Your task to perform on an android device: Go to sound settings Image 0: 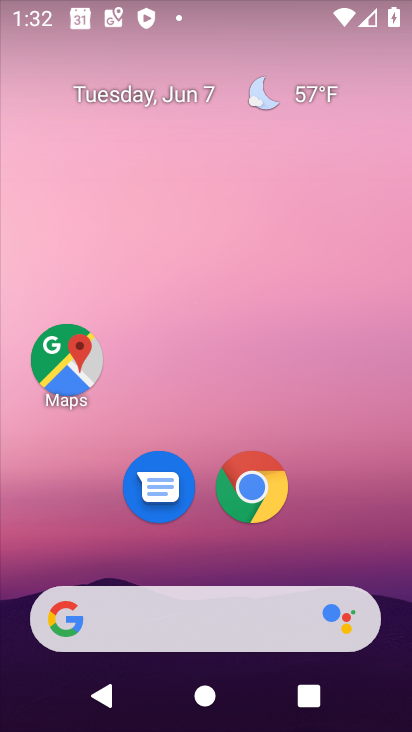
Step 0: drag from (351, 515) to (269, 2)
Your task to perform on an android device: Go to sound settings Image 1: 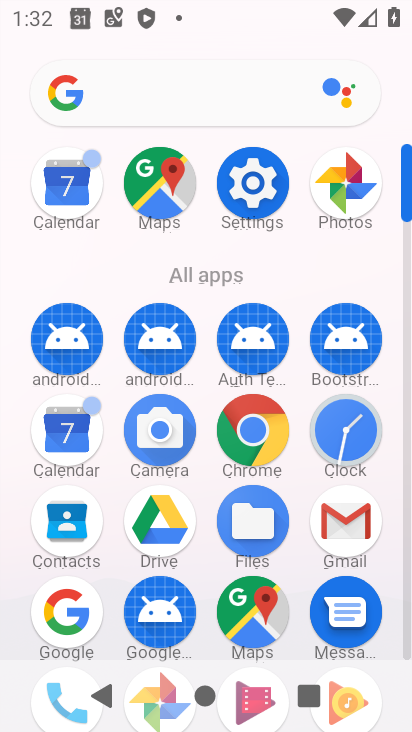
Step 1: click (254, 182)
Your task to perform on an android device: Go to sound settings Image 2: 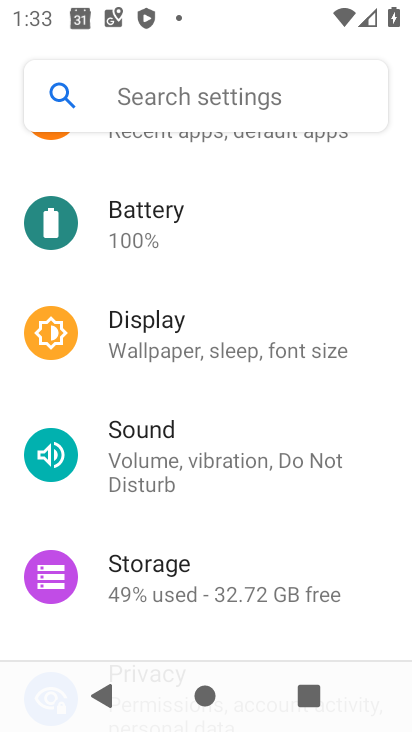
Step 2: click (172, 455)
Your task to perform on an android device: Go to sound settings Image 3: 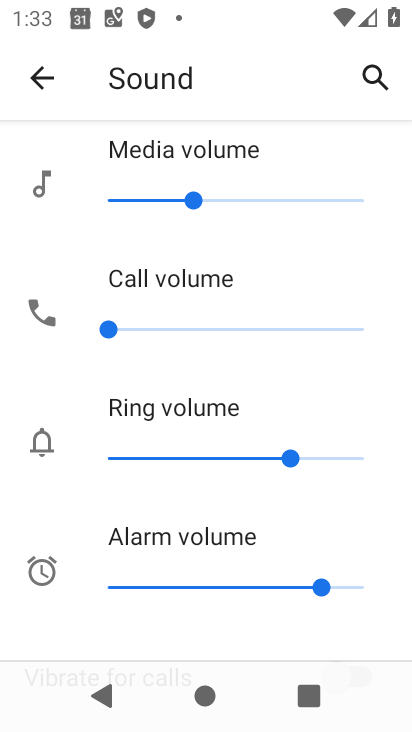
Step 3: task complete